Your task to perform on an android device: delete browsing data in the chrome app Image 0: 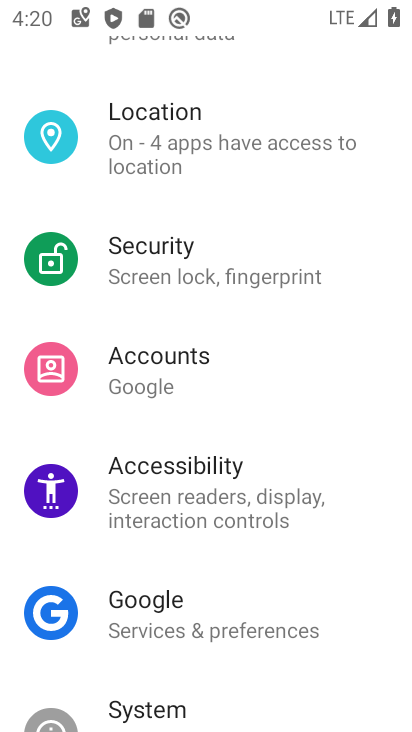
Step 0: press home button
Your task to perform on an android device: delete browsing data in the chrome app Image 1: 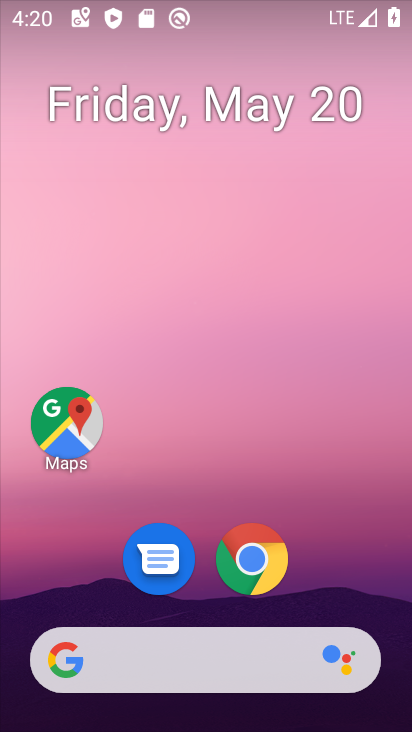
Step 1: click (258, 551)
Your task to perform on an android device: delete browsing data in the chrome app Image 2: 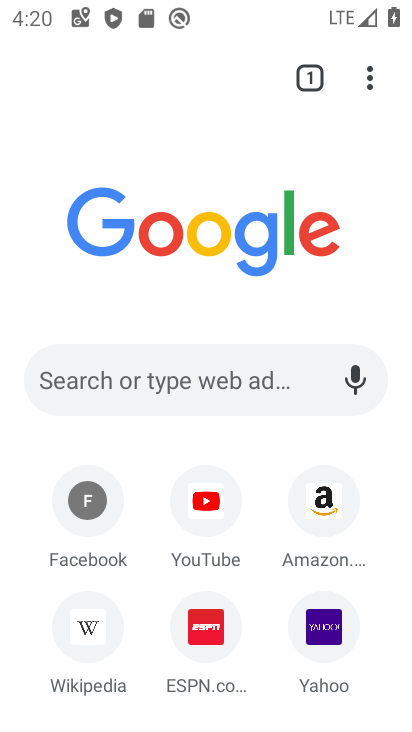
Step 2: click (376, 75)
Your task to perform on an android device: delete browsing data in the chrome app Image 3: 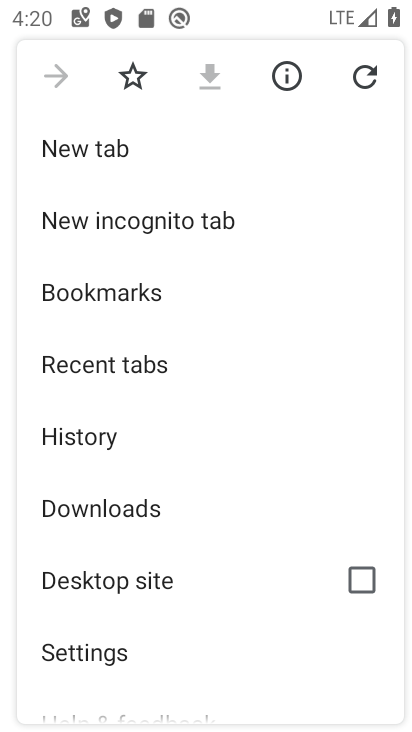
Step 3: click (81, 439)
Your task to perform on an android device: delete browsing data in the chrome app Image 4: 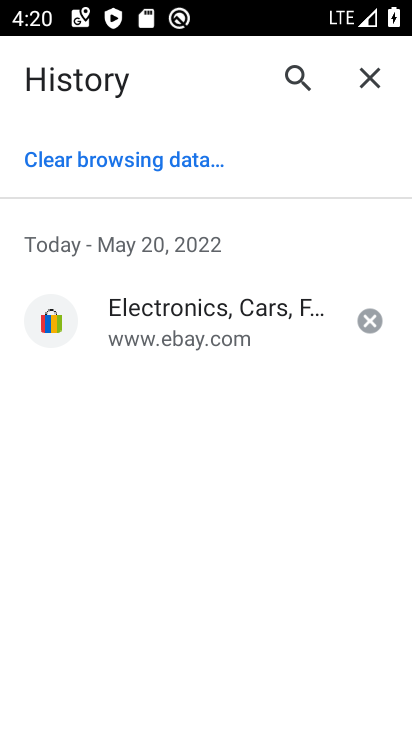
Step 4: click (166, 156)
Your task to perform on an android device: delete browsing data in the chrome app Image 5: 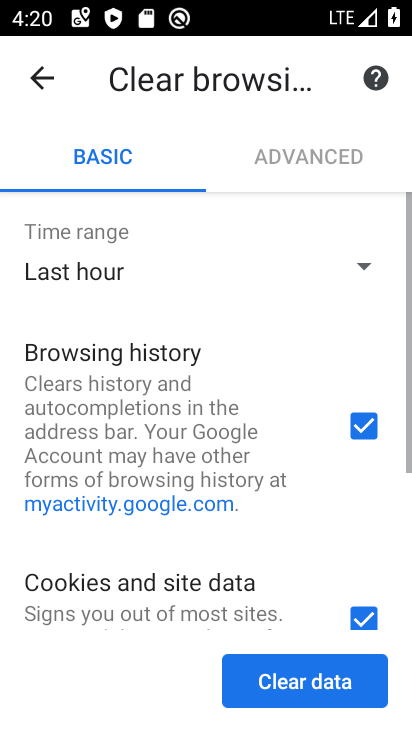
Step 5: click (365, 257)
Your task to perform on an android device: delete browsing data in the chrome app Image 6: 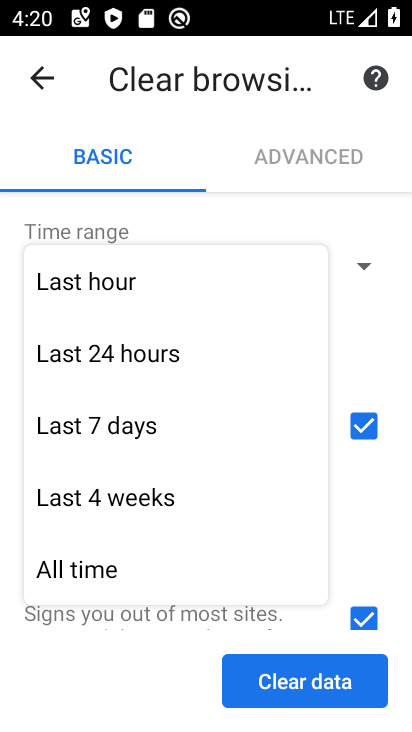
Step 6: click (117, 574)
Your task to perform on an android device: delete browsing data in the chrome app Image 7: 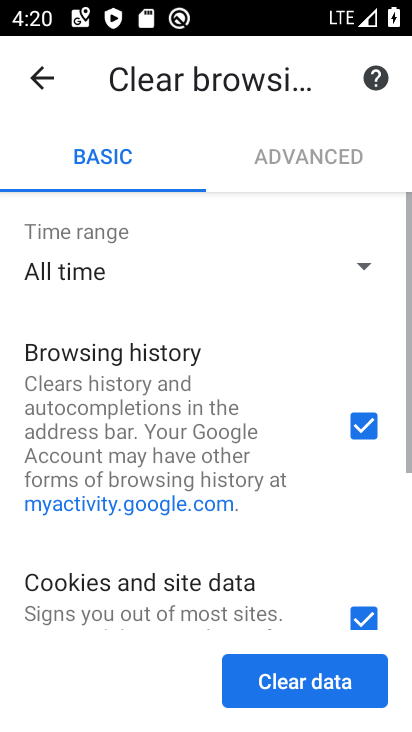
Step 7: drag from (285, 593) to (306, 238)
Your task to perform on an android device: delete browsing data in the chrome app Image 8: 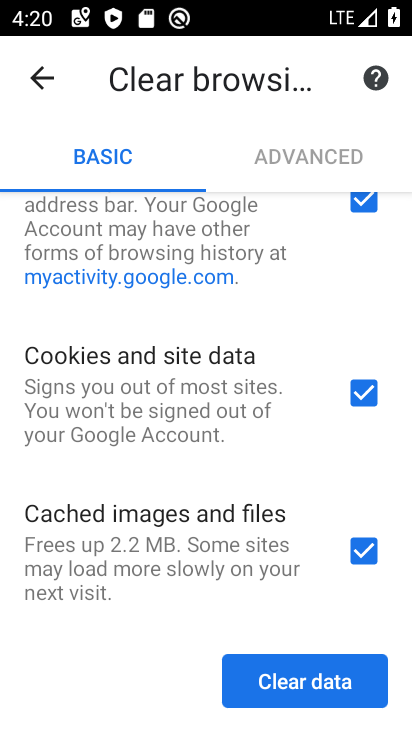
Step 8: click (341, 677)
Your task to perform on an android device: delete browsing data in the chrome app Image 9: 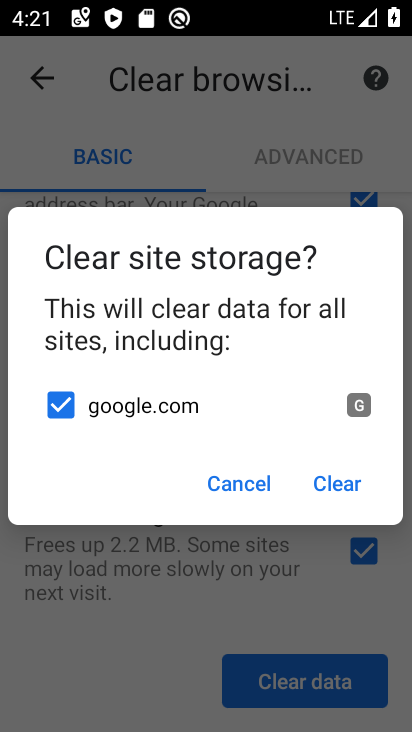
Step 9: click (350, 491)
Your task to perform on an android device: delete browsing data in the chrome app Image 10: 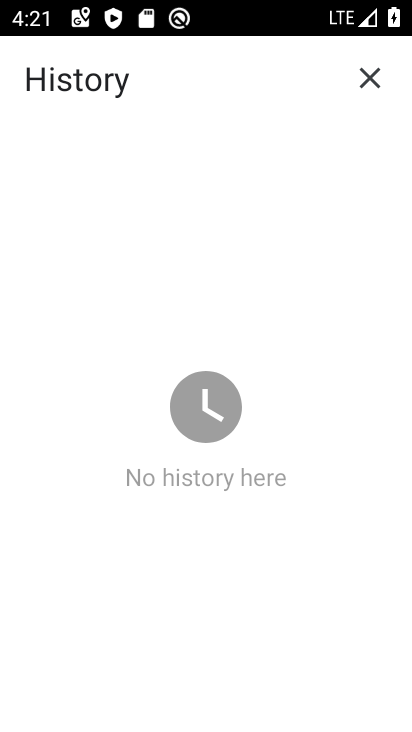
Step 10: task complete